Your task to perform on an android device: find which apps use the phone's location Image 0: 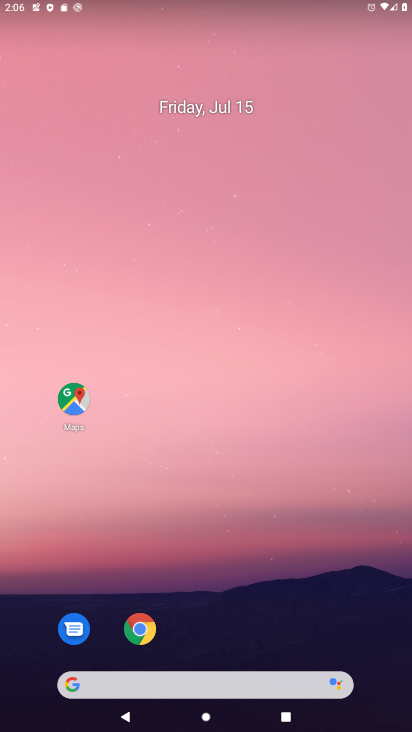
Step 0: drag from (336, 613) to (243, 68)
Your task to perform on an android device: find which apps use the phone's location Image 1: 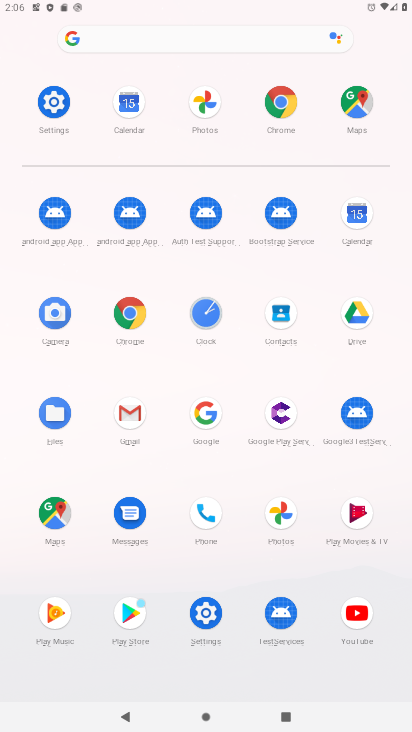
Step 1: click (61, 112)
Your task to perform on an android device: find which apps use the phone's location Image 2: 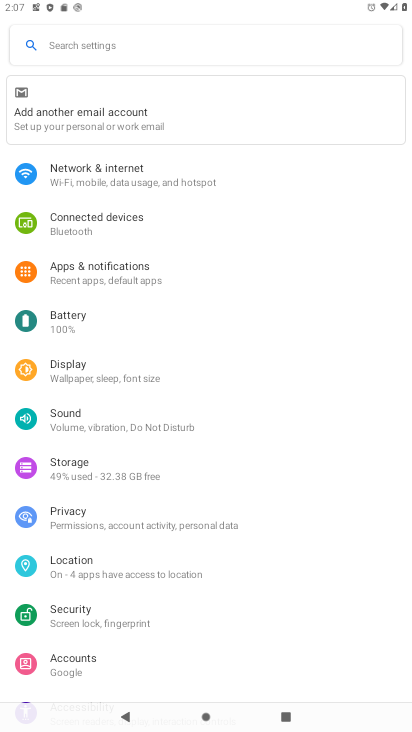
Step 2: click (87, 563)
Your task to perform on an android device: find which apps use the phone's location Image 3: 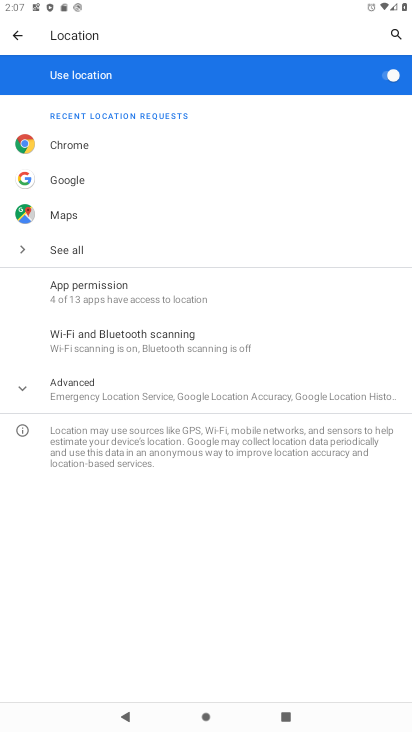
Step 3: click (86, 289)
Your task to perform on an android device: find which apps use the phone's location Image 4: 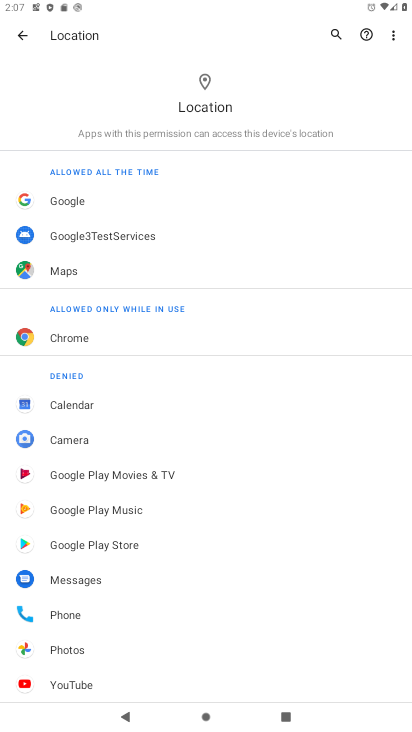
Step 4: task complete